Your task to perform on an android device: read, delete, or share a saved page in the chrome app Image 0: 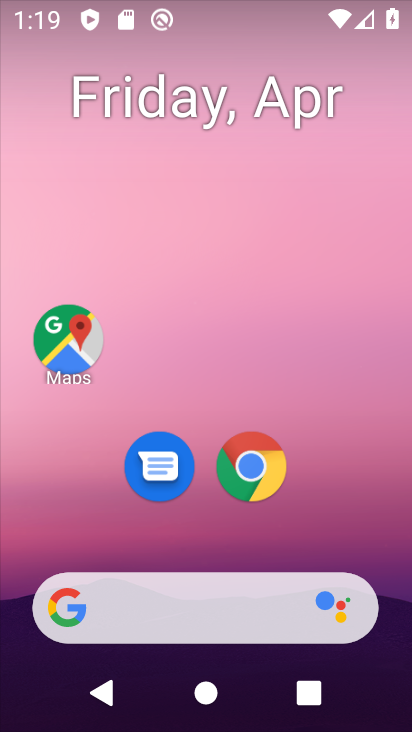
Step 0: click (263, 473)
Your task to perform on an android device: read, delete, or share a saved page in the chrome app Image 1: 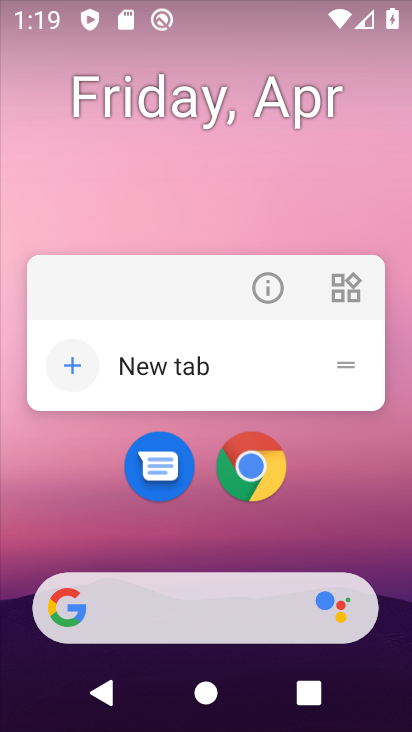
Step 1: click (253, 477)
Your task to perform on an android device: read, delete, or share a saved page in the chrome app Image 2: 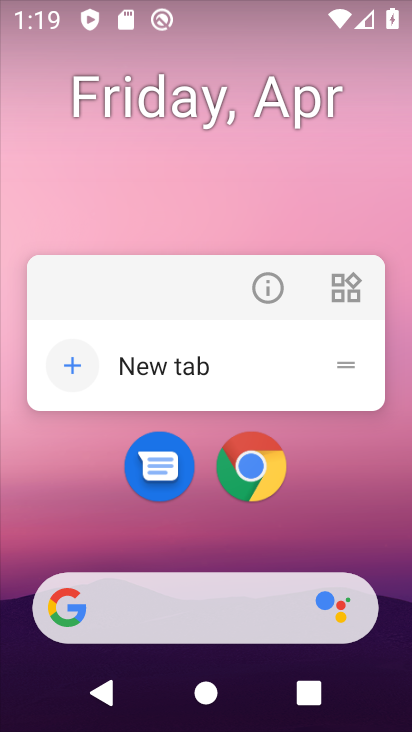
Step 2: click (257, 474)
Your task to perform on an android device: read, delete, or share a saved page in the chrome app Image 3: 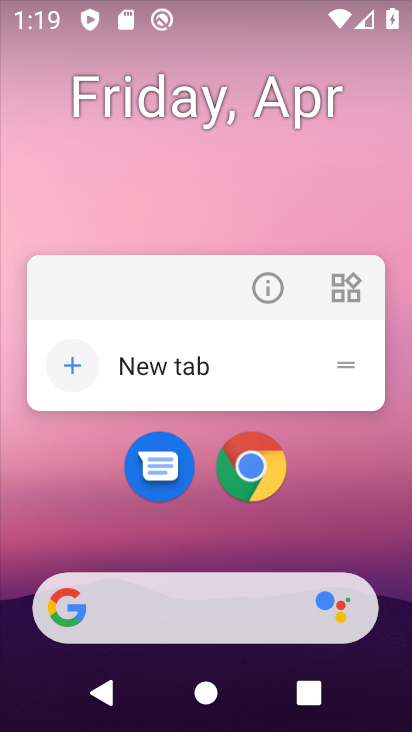
Step 3: click (249, 479)
Your task to perform on an android device: read, delete, or share a saved page in the chrome app Image 4: 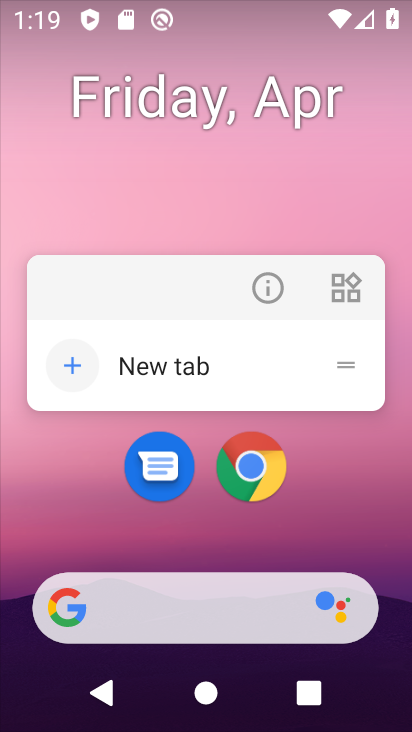
Step 4: click (267, 495)
Your task to perform on an android device: read, delete, or share a saved page in the chrome app Image 5: 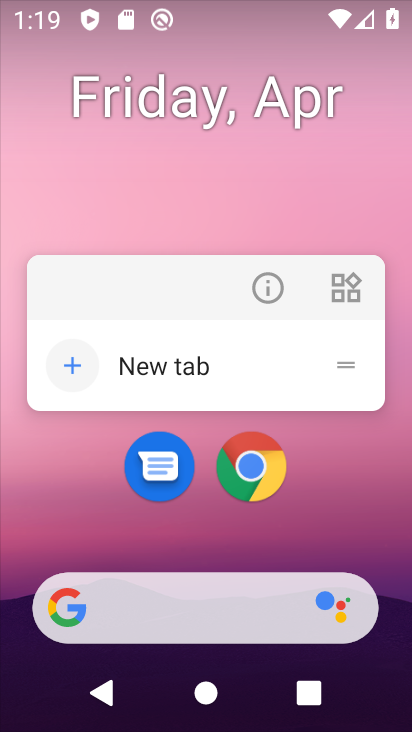
Step 5: click (314, 478)
Your task to perform on an android device: read, delete, or share a saved page in the chrome app Image 6: 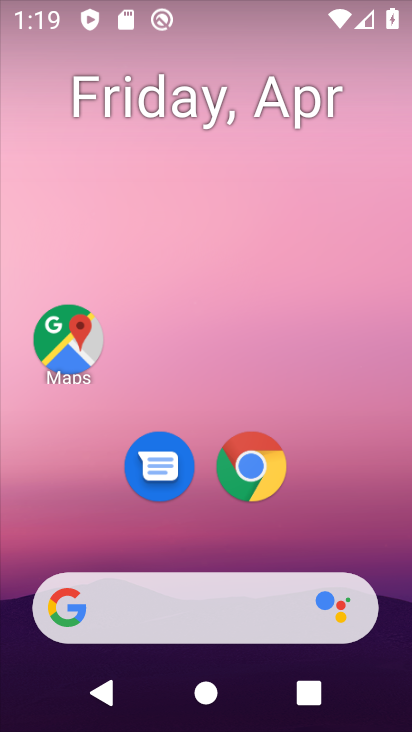
Step 6: click (314, 478)
Your task to perform on an android device: read, delete, or share a saved page in the chrome app Image 7: 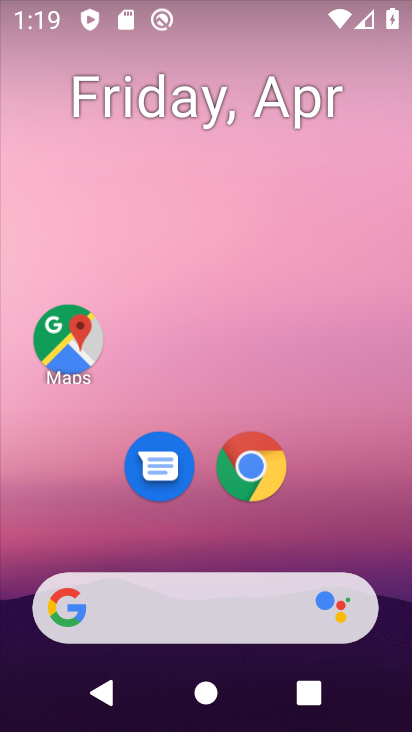
Step 7: click (252, 488)
Your task to perform on an android device: read, delete, or share a saved page in the chrome app Image 8: 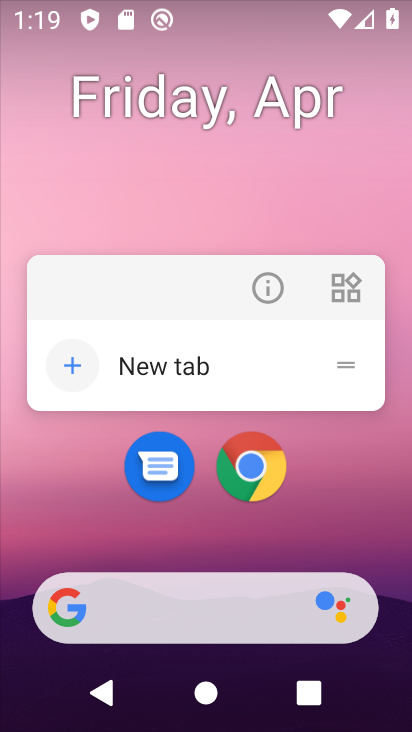
Step 8: click (252, 488)
Your task to perform on an android device: read, delete, or share a saved page in the chrome app Image 9: 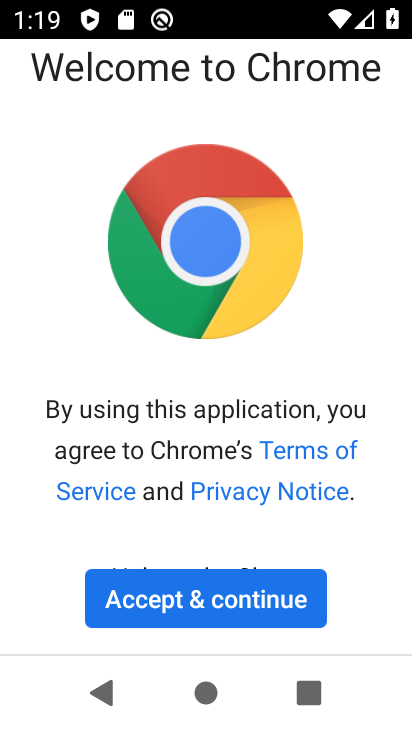
Step 9: click (275, 609)
Your task to perform on an android device: read, delete, or share a saved page in the chrome app Image 10: 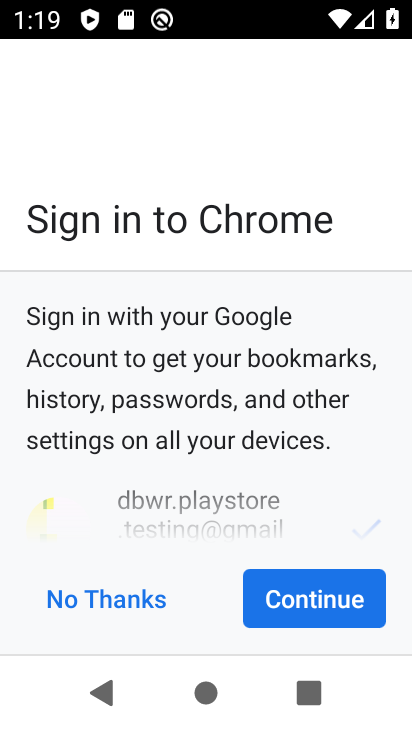
Step 10: click (275, 609)
Your task to perform on an android device: read, delete, or share a saved page in the chrome app Image 11: 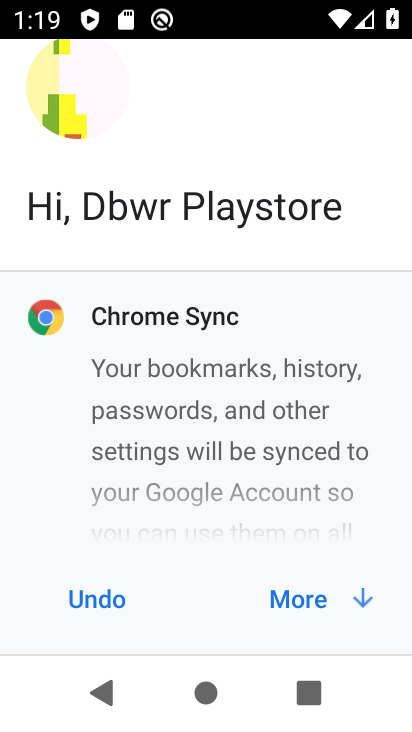
Step 11: click (282, 600)
Your task to perform on an android device: read, delete, or share a saved page in the chrome app Image 12: 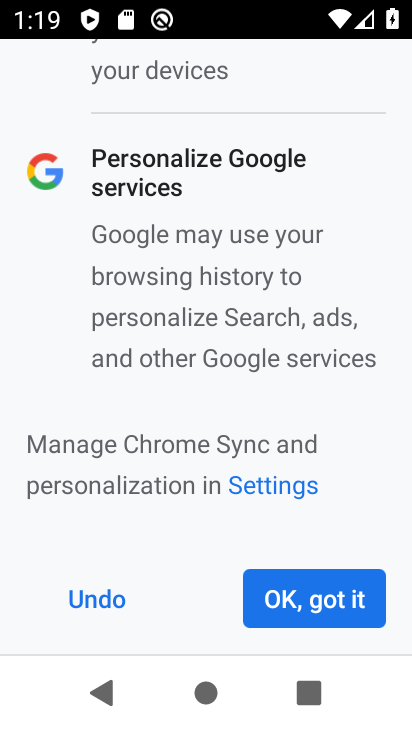
Step 12: click (282, 600)
Your task to perform on an android device: read, delete, or share a saved page in the chrome app Image 13: 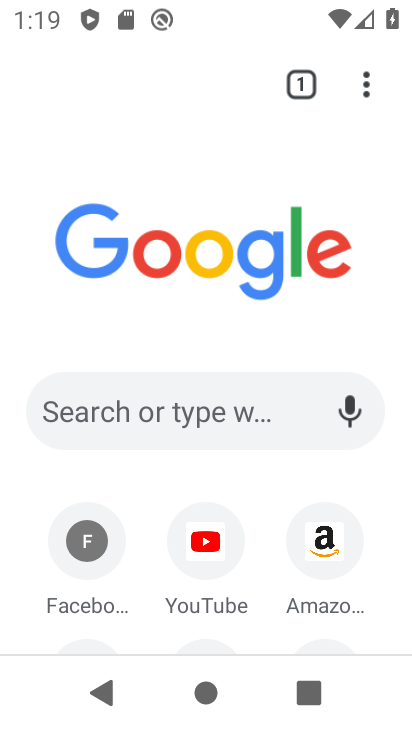
Step 13: task complete